Your task to perform on an android device: turn on improve location accuracy Image 0: 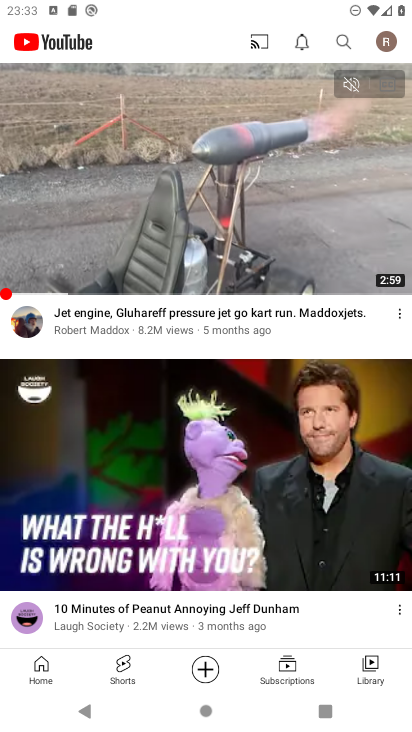
Step 0: press home button
Your task to perform on an android device: turn on improve location accuracy Image 1: 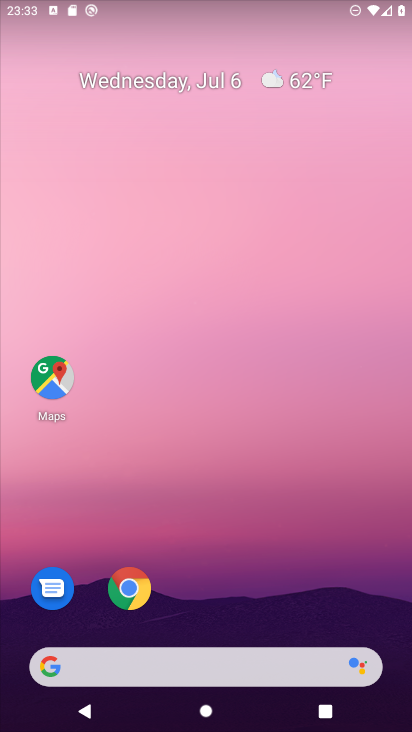
Step 1: drag from (372, 621) to (282, 189)
Your task to perform on an android device: turn on improve location accuracy Image 2: 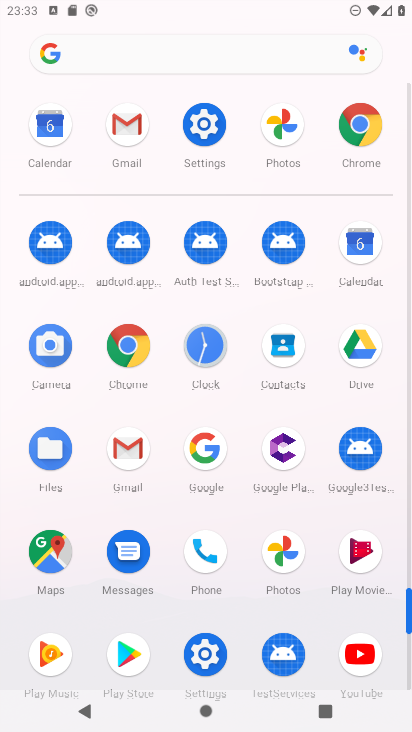
Step 2: click (207, 653)
Your task to perform on an android device: turn on improve location accuracy Image 3: 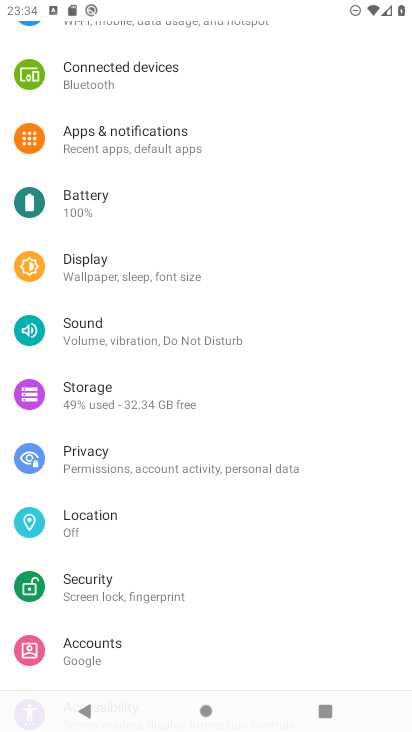
Step 3: click (74, 522)
Your task to perform on an android device: turn on improve location accuracy Image 4: 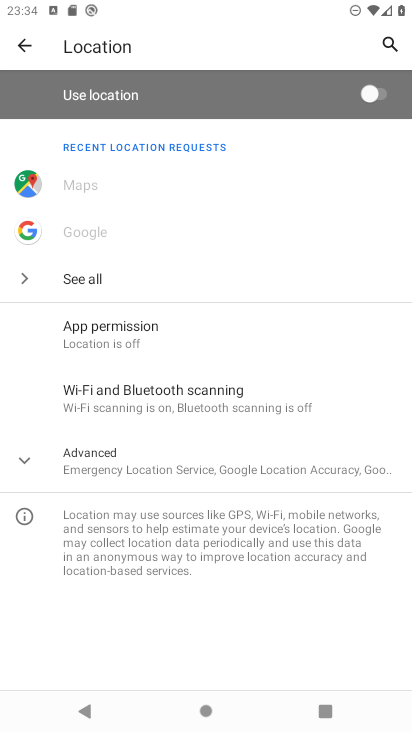
Step 4: click (83, 461)
Your task to perform on an android device: turn on improve location accuracy Image 5: 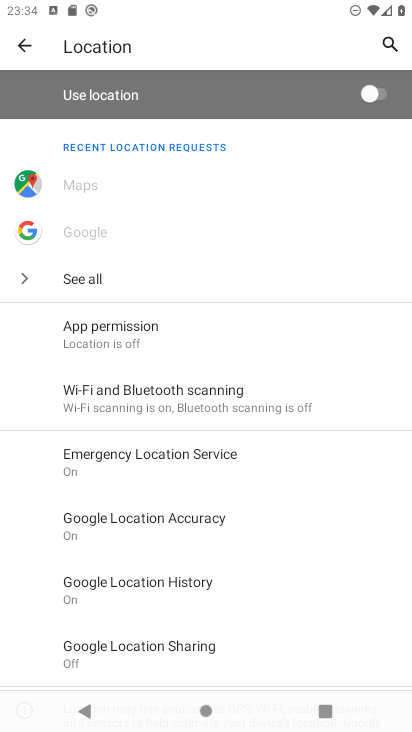
Step 5: click (117, 519)
Your task to perform on an android device: turn on improve location accuracy Image 6: 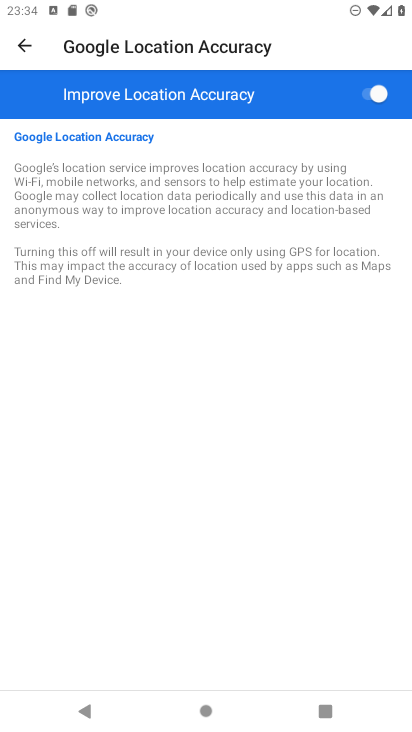
Step 6: task complete